Your task to perform on an android device: turn on showing notifications on the lock screen Image 0: 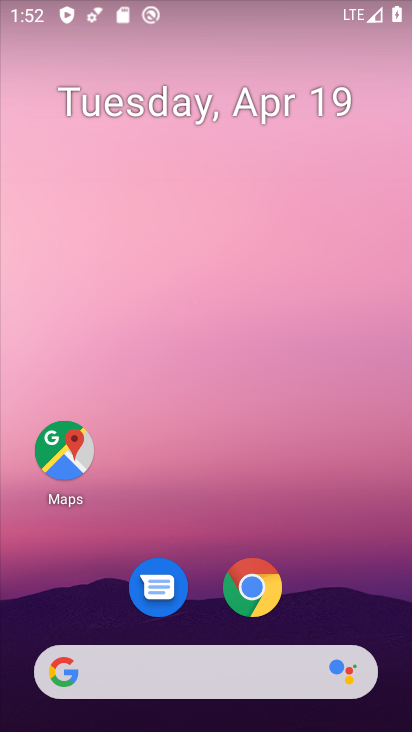
Step 0: drag from (284, 547) to (214, 164)
Your task to perform on an android device: turn on showing notifications on the lock screen Image 1: 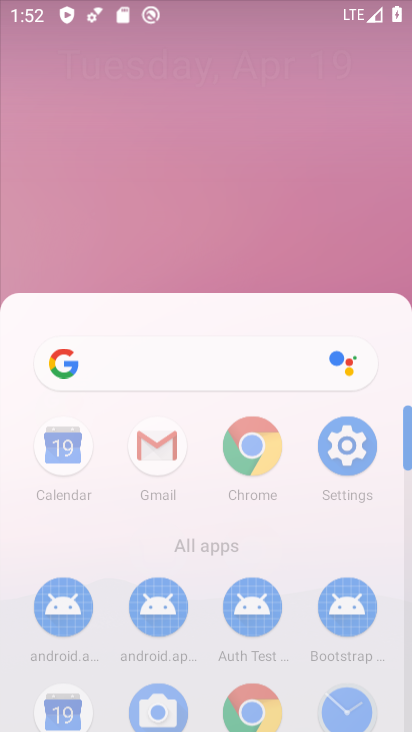
Step 1: drag from (205, 718) to (126, 132)
Your task to perform on an android device: turn on showing notifications on the lock screen Image 2: 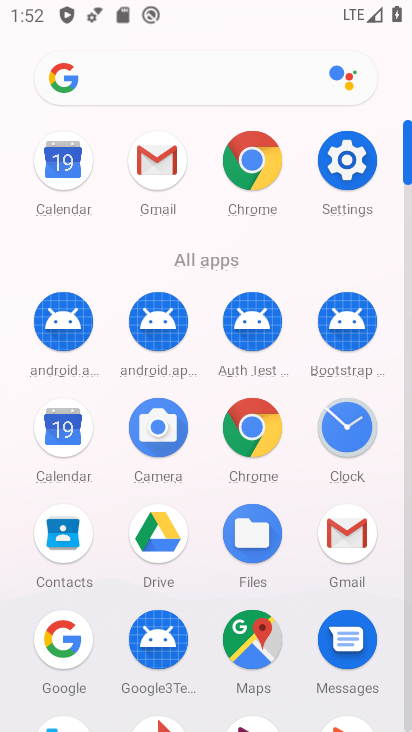
Step 2: click (350, 171)
Your task to perform on an android device: turn on showing notifications on the lock screen Image 3: 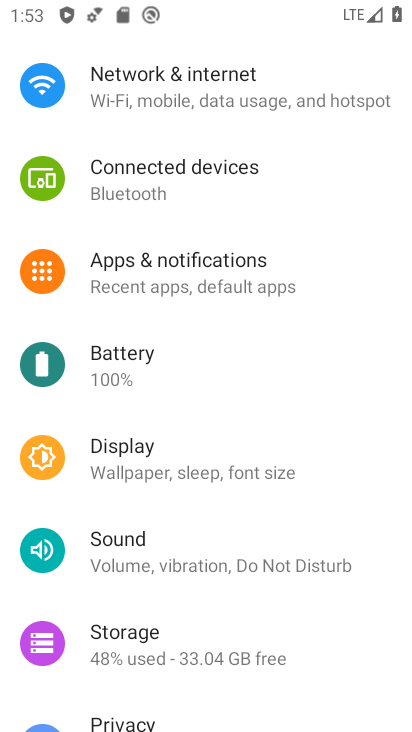
Step 3: click (177, 273)
Your task to perform on an android device: turn on showing notifications on the lock screen Image 4: 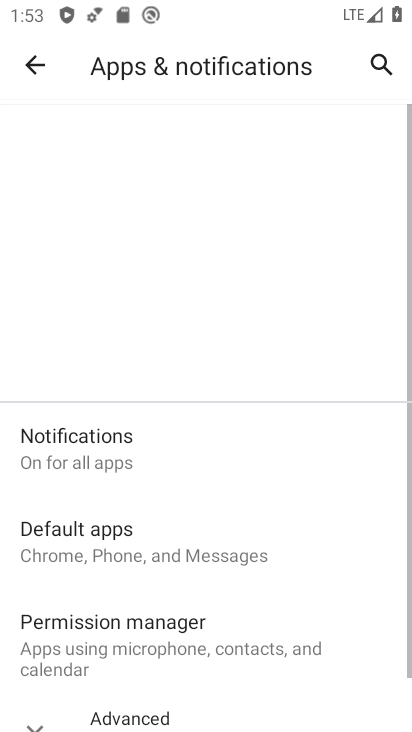
Step 4: click (177, 273)
Your task to perform on an android device: turn on showing notifications on the lock screen Image 5: 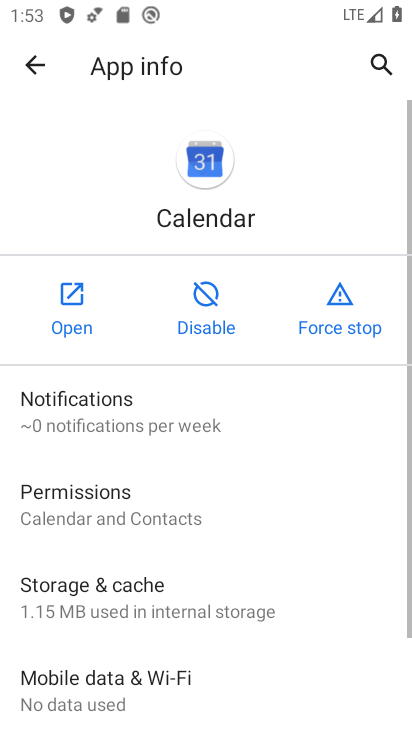
Step 5: click (50, 442)
Your task to perform on an android device: turn on showing notifications on the lock screen Image 6: 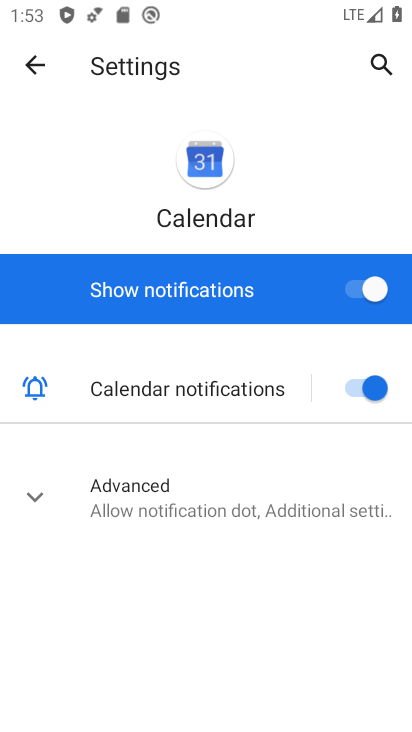
Step 6: drag from (228, 623) to (213, 280)
Your task to perform on an android device: turn on showing notifications on the lock screen Image 7: 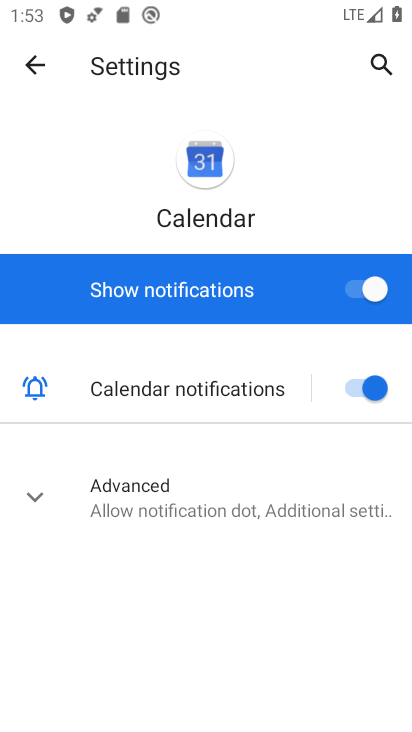
Step 7: click (33, 61)
Your task to perform on an android device: turn on showing notifications on the lock screen Image 8: 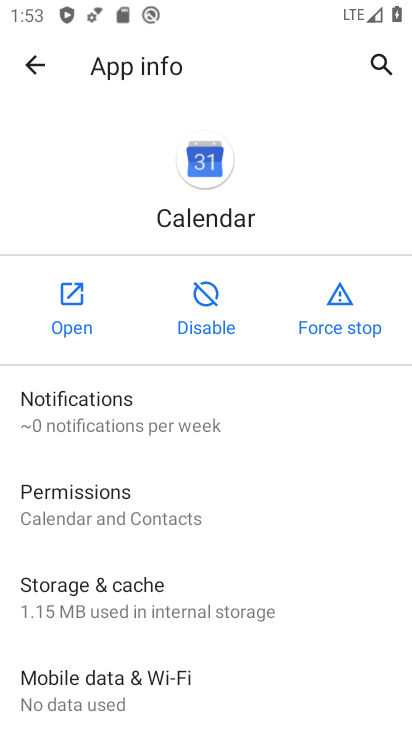
Step 8: drag from (137, 578) to (174, 382)
Your task to perform on an android device: turn on showing notifications on the lock screen Image 9: 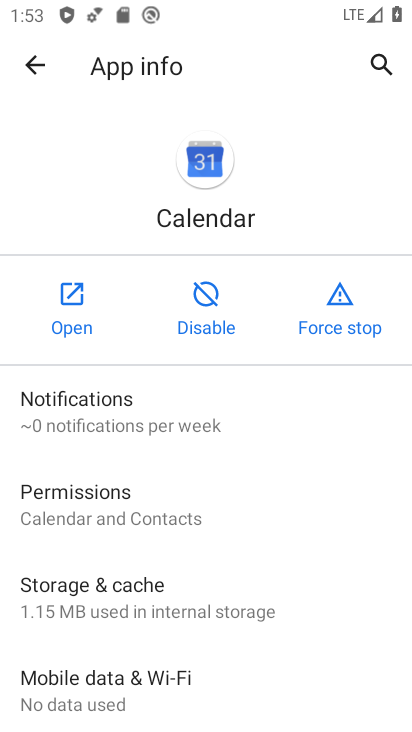
Step 9: click (29, 79)
Your task to perform on an android device: turn on showing notifications on the lock screen Image 10: 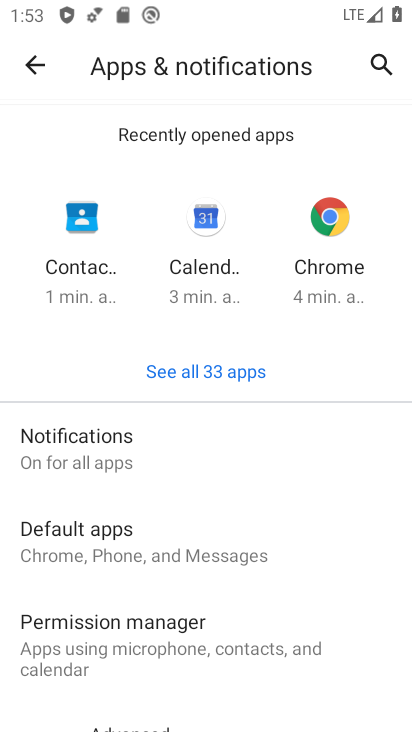
Step 10: drag from (124, 607) to (137, 331)
Your task to perform on an android device: turn on showing notifications on the lock screen Image 11: 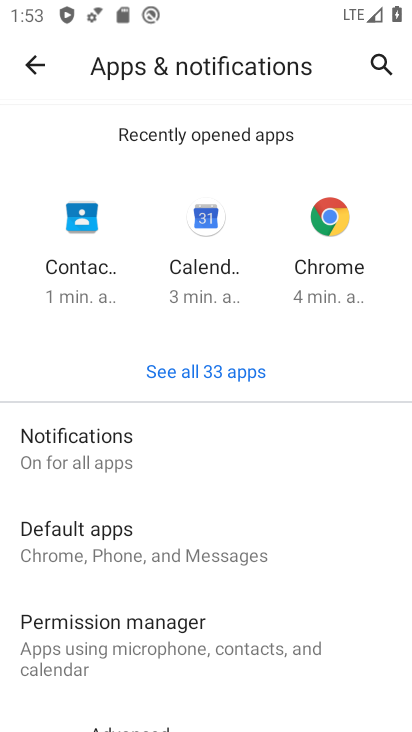
Step 11: drag from (193, 592) to (264, 275)
Your task to perform on an android device: turn on showing notifications on the lock screen Image 12: 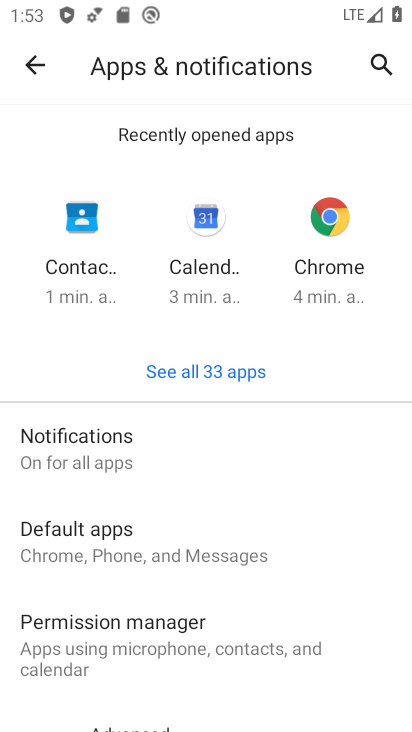
Step 12: click (72, 453)
Your task to perform on an android device: turn on showing notifications on the lock screen Image 13: 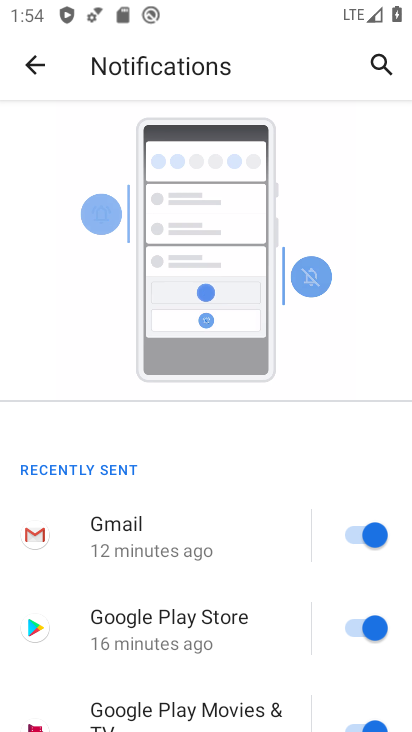
Step 13: click (141, 170)
Your task to perform on an android device: turn on showing notifications on the lock screen Image 14: 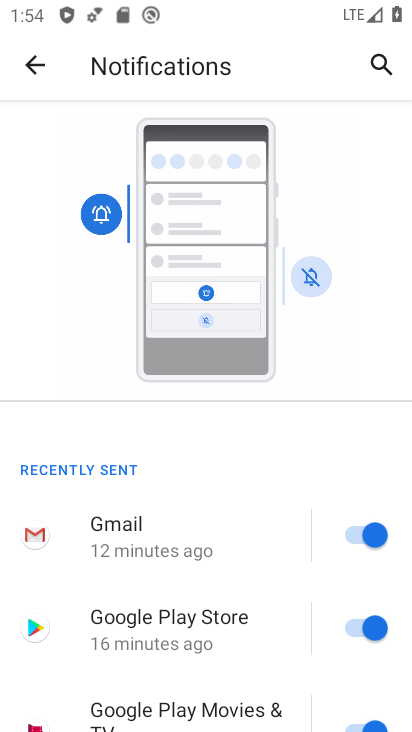
Step 14: drag from (215, 552) to (249, 221)
Your task to perform on an android device: turn on showing notifications on the lock screen Image 15: 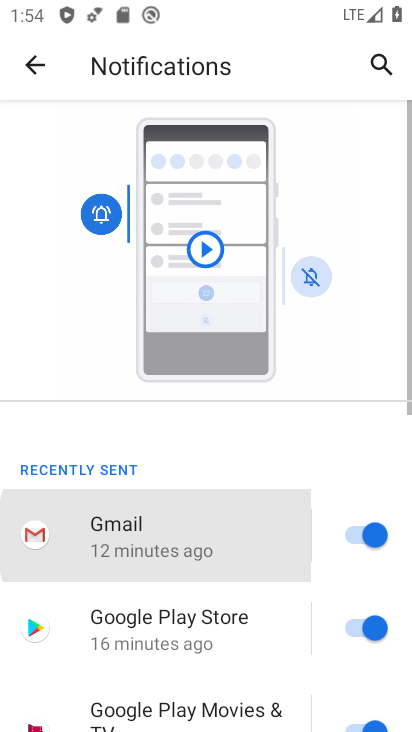
Step 15: drag from (263, 560) to (249, 221)
Your task to perform on an android device: turn on showing notifications on the lock screen Image 16: 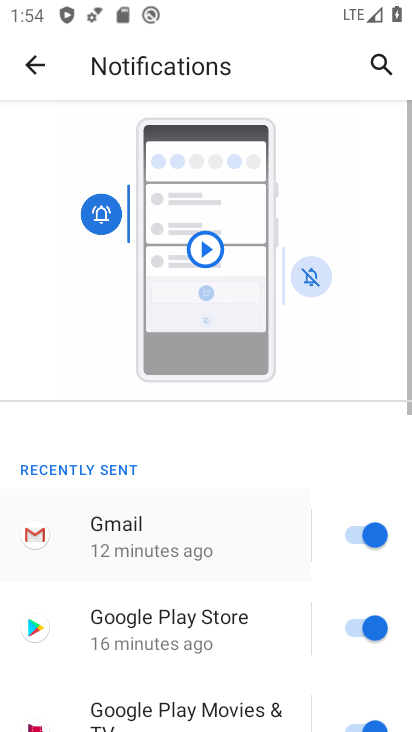
Step 16: drag from (139, 591) to (220, 210)
Your task to perform on an android device: turn on showing notifications on the lock screen Image 17: 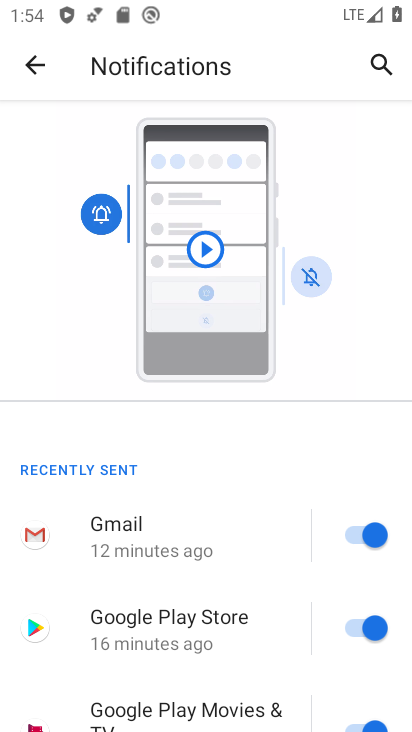
Step 17: drag from (194, 614) to (197, 330)
Your task to perform on an android device: turn on showing notifications on the lock screen Image 18: 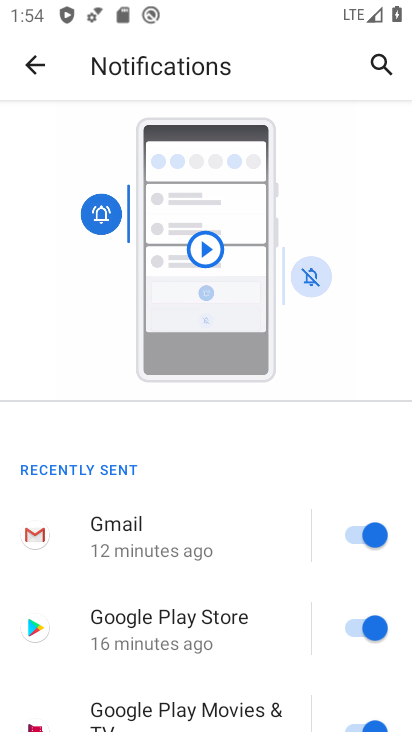
Step 18: drag from (199, 665) to (178, 160)
Your task to perform on an android device: turn on showing notifications on the lock screen Image 19: 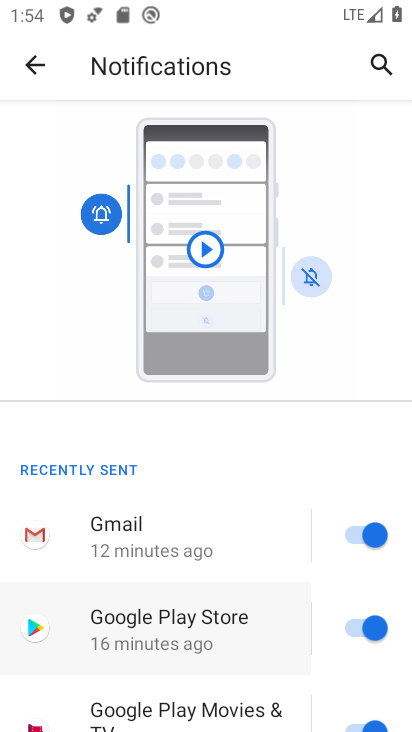
Step 19: drag from (160, 594) to (174, 37)
Your task to perform on an android device: turn on showing notifications on the lock screen Image 20: 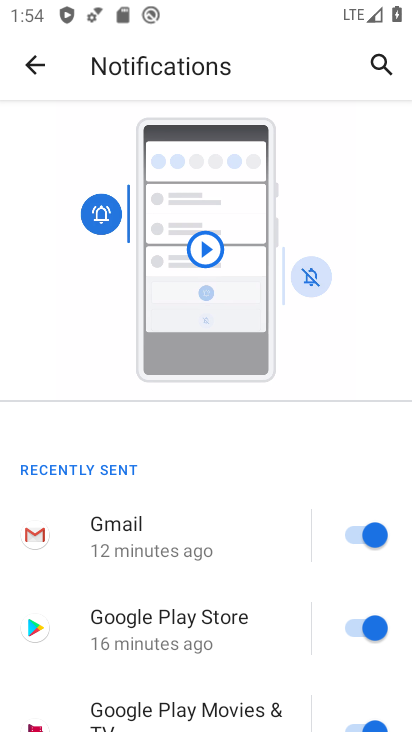
Step 20: drag from (235, 672) to (208, 260)
Your task to perform on an android device: turn on showing notifications on the lock screen Image 21: 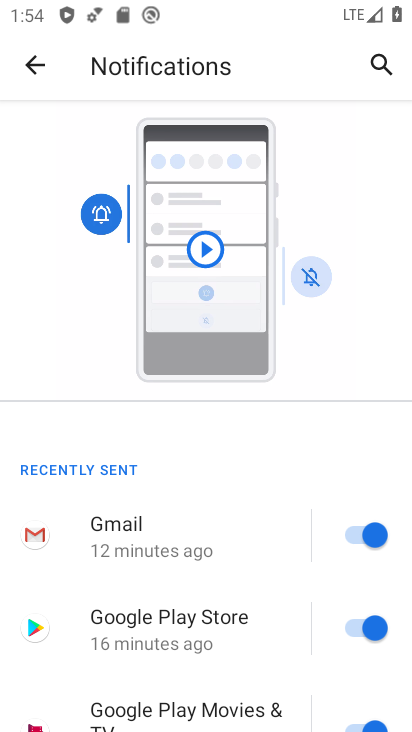
Step 21: drag from (199, 615) to (112, 337)
Your task to perform on an android device: turn on showing notifications on the lock screen Image 22: 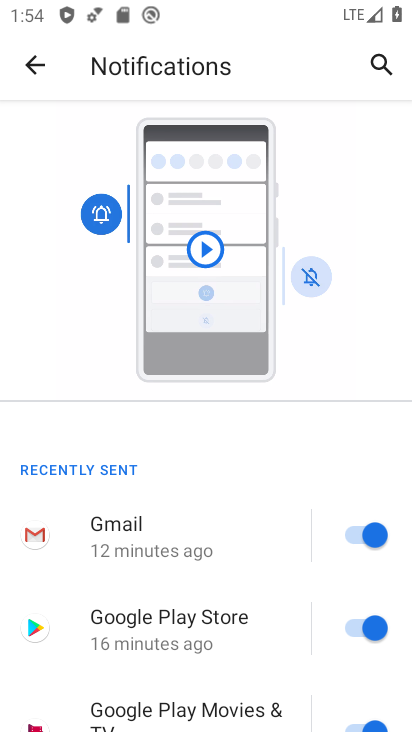
Step 22: drag from (191, 638) to (140, 239)
Your task to perform on an android device: turn on showing notifications on the lock screen Image 23: 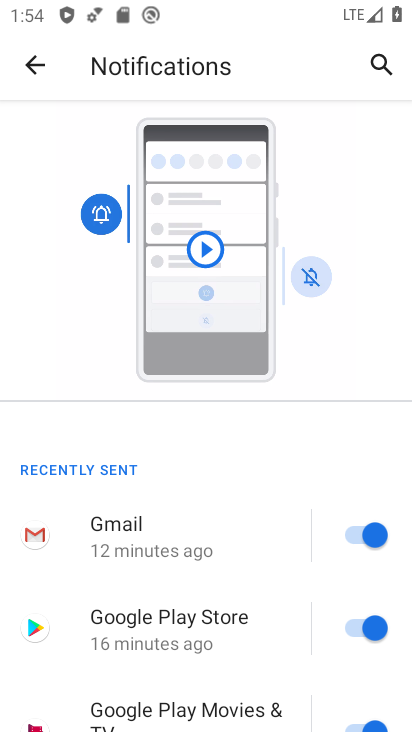
Step 23: drag from (201, 643) to (132, 163)
Your task to perform on an android device: turn on showing notifications on the lock screen Image 24: 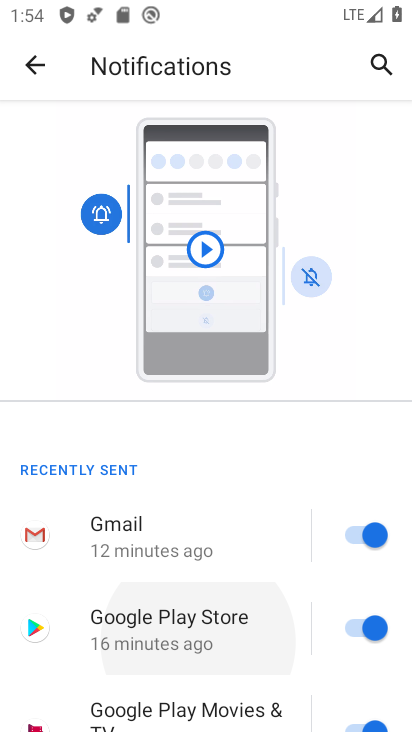
Step 24: drag from (184, 95) to (256, 141)
Your task to perform on an android device: turn on showing notifications on the lock screen Image 25: 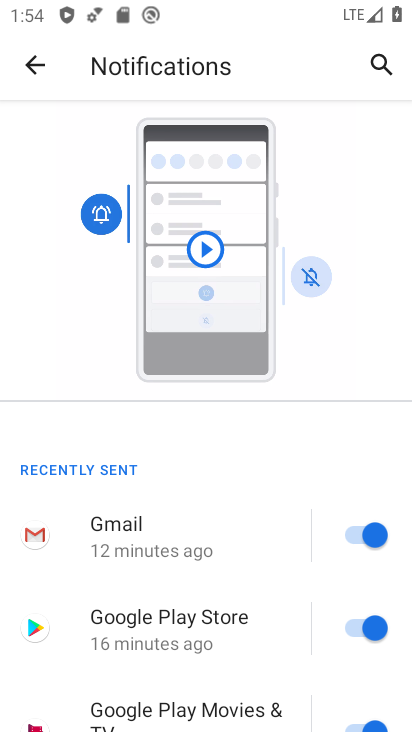
Step 25: drag from (269, 585) to (143, 169)
Your task to perform on an android device: turn on showing notifications on the lock screen Image 26: 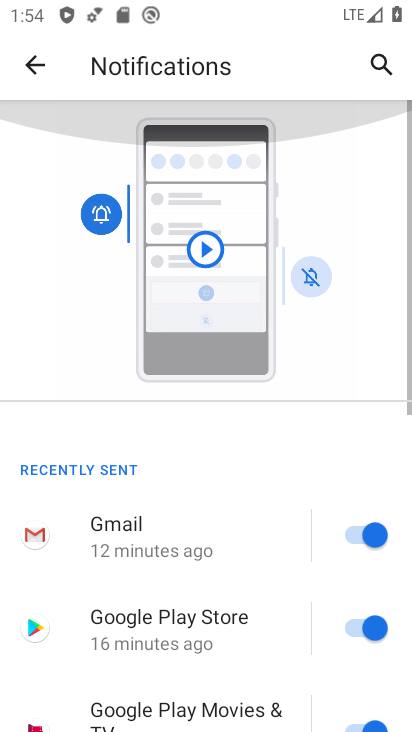
Step 26: drag from (158, 652) to (137, 194)
Your task to perform on an android device: turn on showing notifications on the lock screen Image 27: 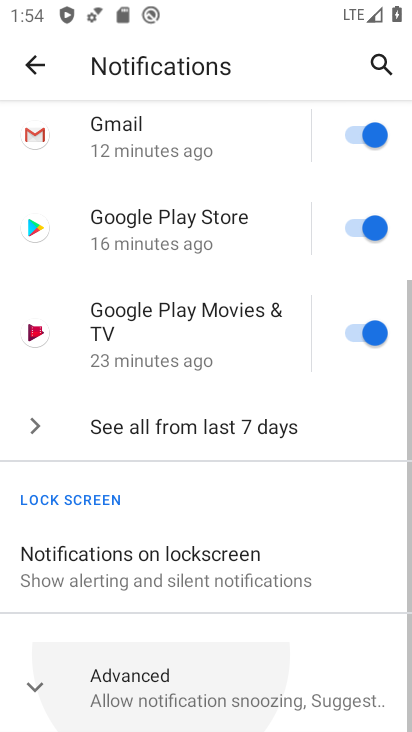
Step 27: drag from (123, 556) to (70, 288)
Your task to perform on an android device: turn on showing notifications on the lock screen Image 28: 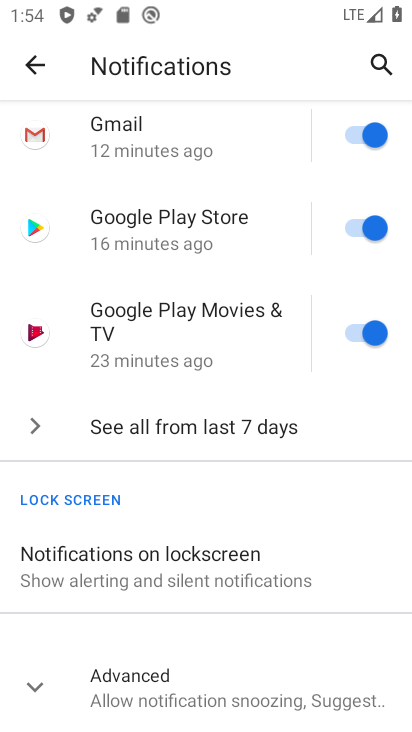
Step 28: click (95, 545)
Your task to perform on an android device: turn on showing notifications on the lock screen Image 29: 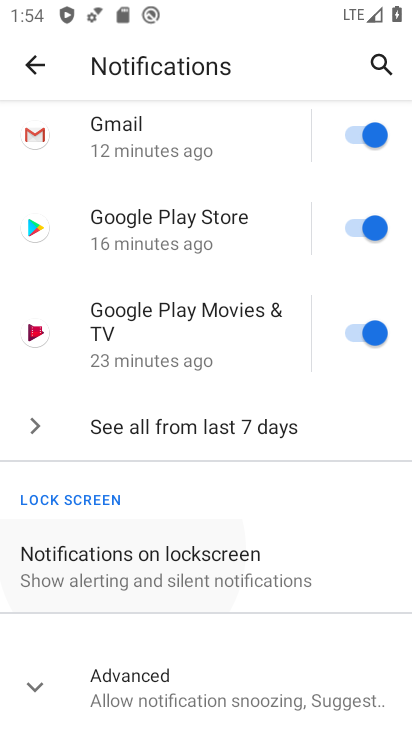
Step 29: click (95, 545)
Your task to perform on an android device: turn on showing notifications on the lock screen Image 30: 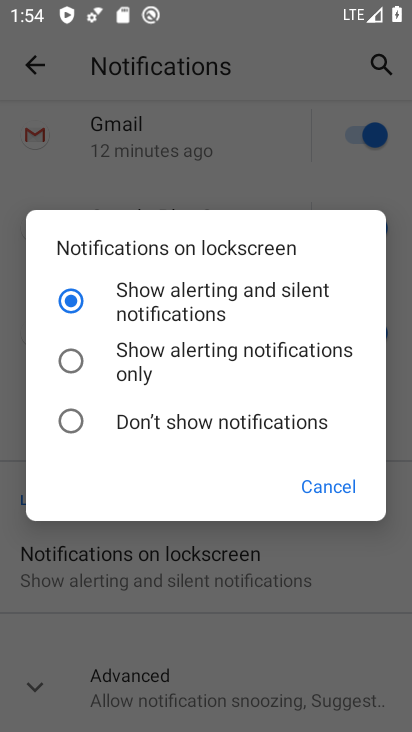
Step 30: task complete